Your task to perform on an android device: turn off wifi Image 0: 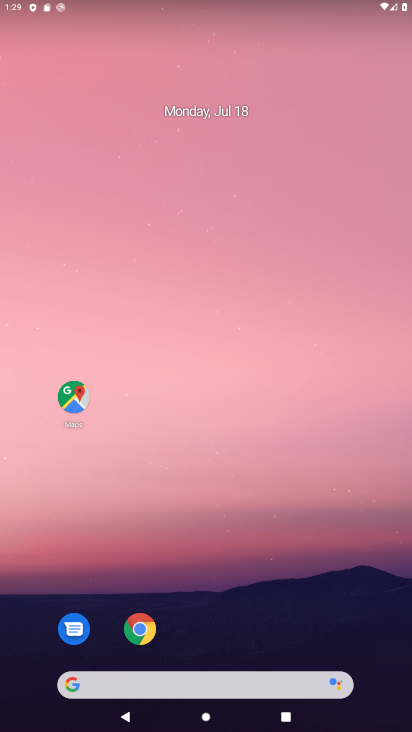
Step 0: press home button
Your task to perform on an android device: turn off wifi Image 1: 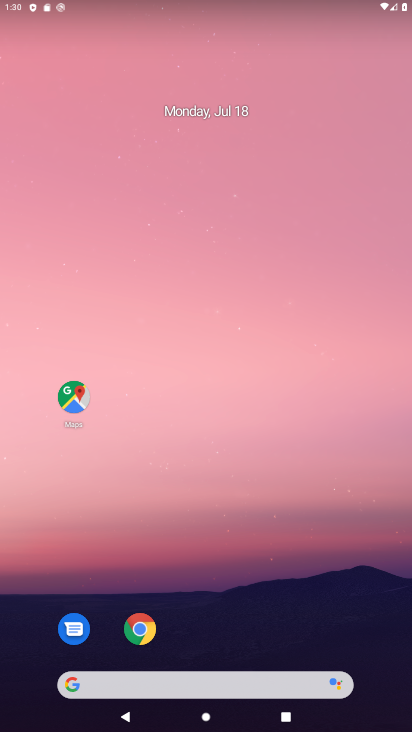
Step 1: drag from (197, 8) to (214, 594)
Your task to perform on an android device: turn off wifi Image 2: 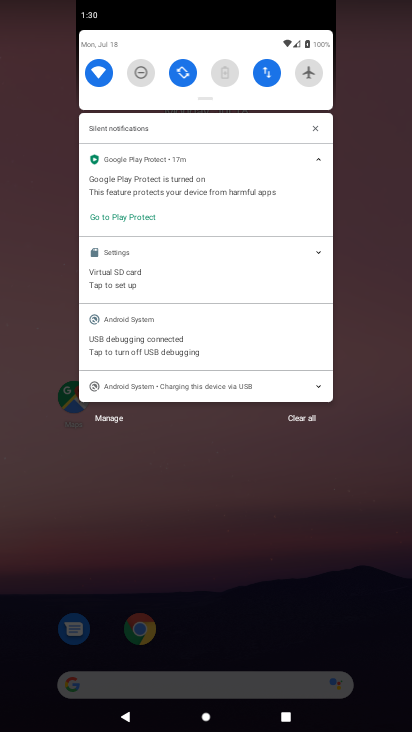
Step 2: click (104, 70)
Your task to perform on an android device: turn off wifi Image 3: 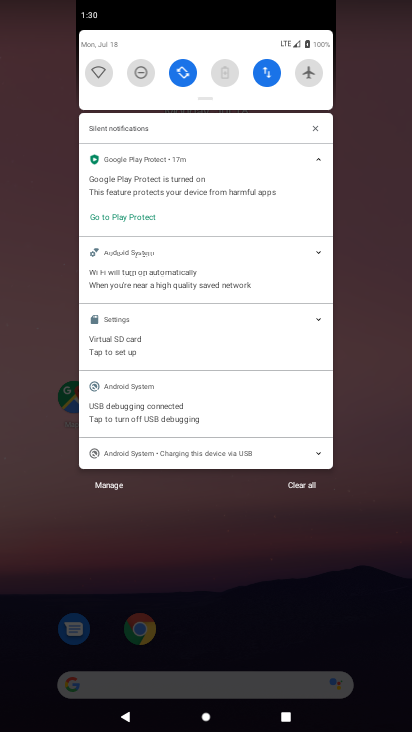
Step 3: task complete